Your task to perform on an android device: turn on wifi Image 0: 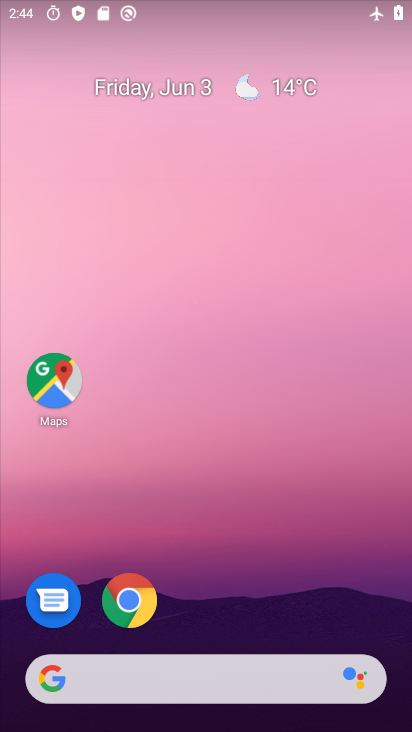
Step 0: drag from (227, 539) to (212, 17)
Your task to perform on an android device: turn on wifi Image 1: 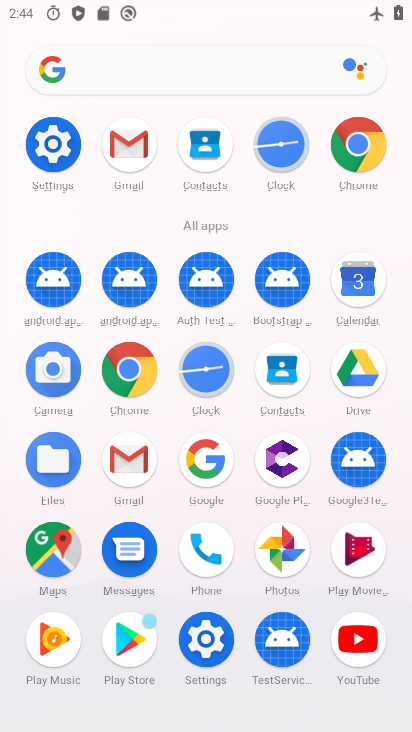
Step 1: click (205, 637)
Your task to perform on an android device: turn on wifi Image 2: 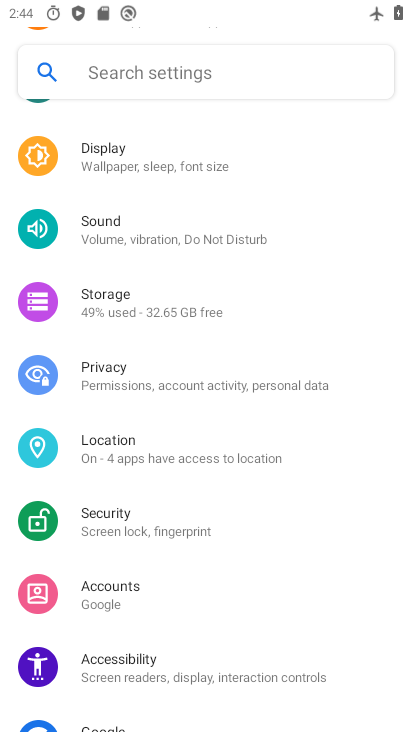
Step 2: drag from (215, 181) to (189, 529)
Your task to perform on an android device: turn on wifi Image 3: 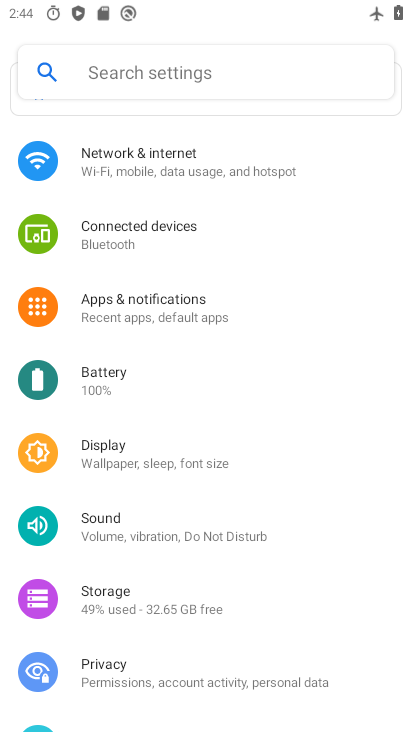
Step 3: drag from (220, 194) to (216, 566)
Your task to perform on an android device: turn on wifi Image 4: 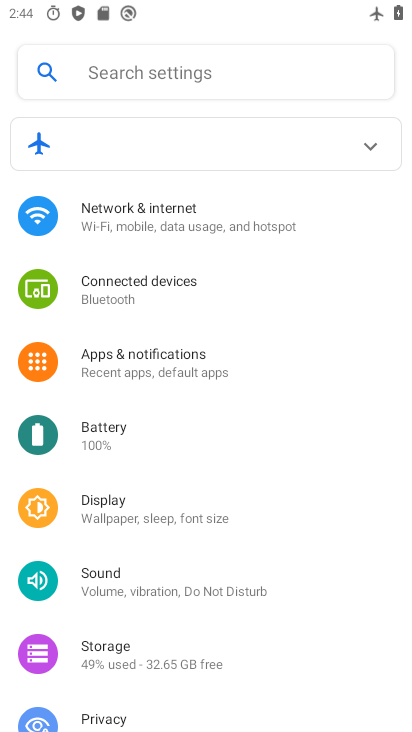
Step 4: click (178, 221)
Your task to perform on an android device: turn on wifi Image 5: 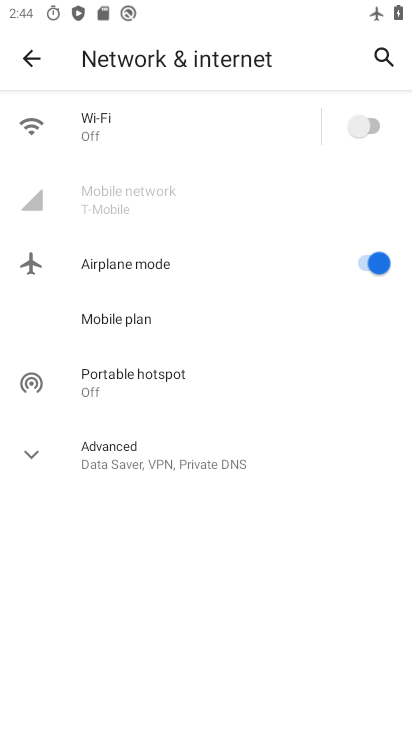
Step 5: click (376, 128)
Your task to perform on an android device: turn on wifi Image 6: 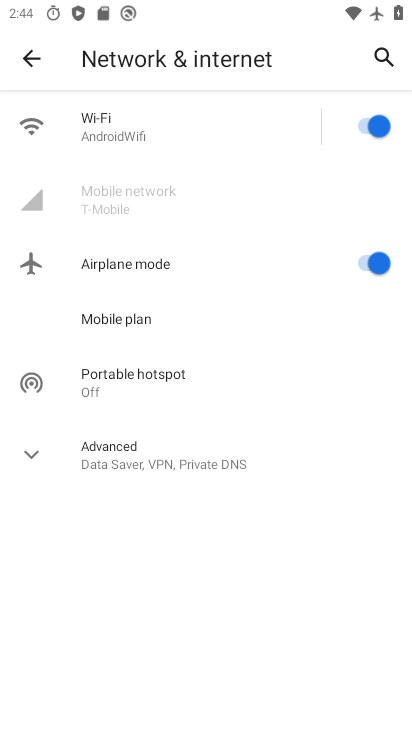
Step 6: click (20, 451)
Your task to perform on an android device: turn on wifi Image 7: 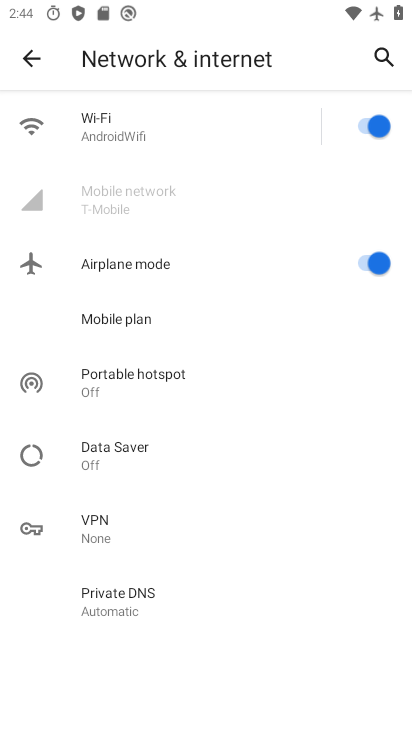
Step 7: task complete